Your task to perform on an android device: turn notification dots on Image 0: 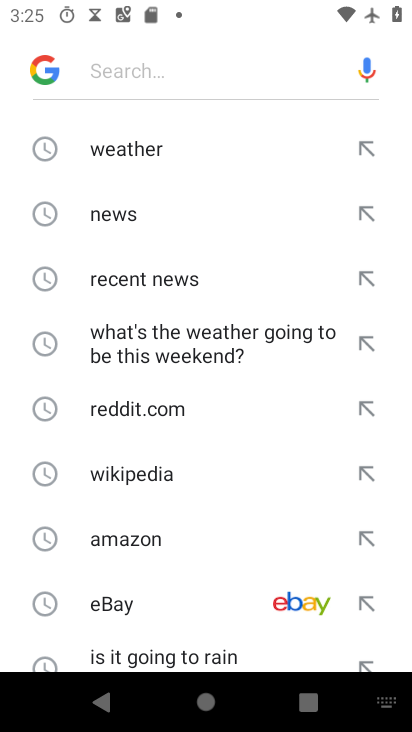
Step 0: press home button
Your task to perform on an android device: turn notification dots on Image 1: 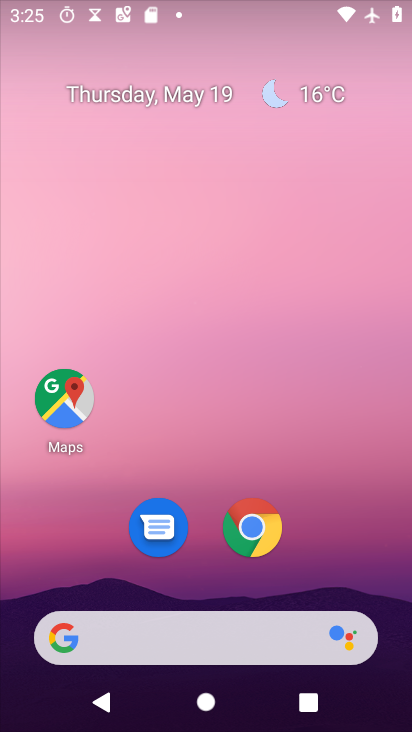
Step 1: drag from (354, 556) to (247, 11)
Your task to perform on an android device: turn notification dots on Image 2: 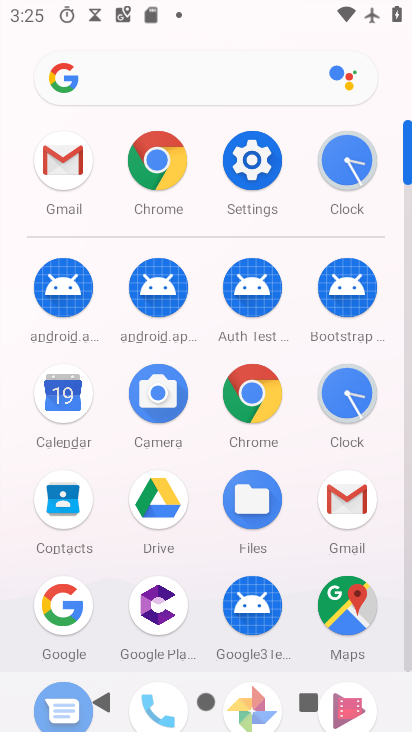
Step 2: click (274, 176)
Your task to perform on an android device: turn notification dots on Image 3: 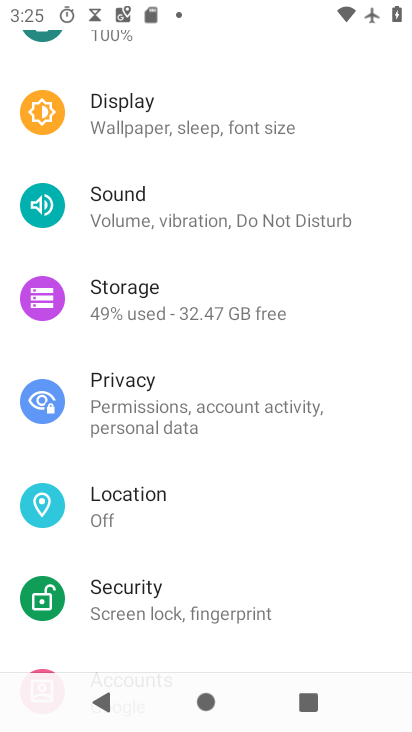
Step 3: drag from (243, 149) to (199, 610)
Your task to perform on an android device: turn notification dots on Image 4: 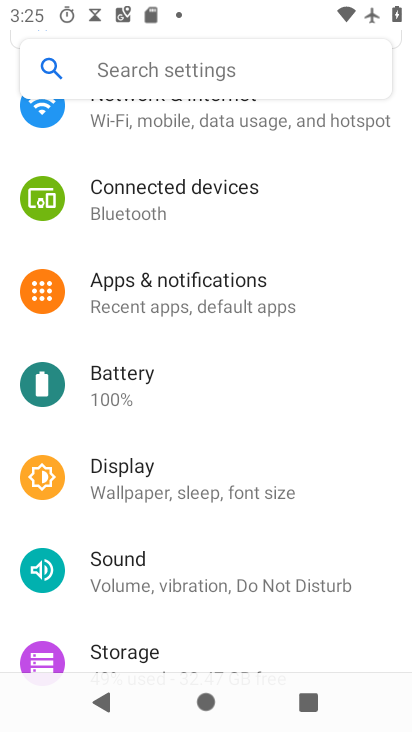
Step 4: click (191, 277)
Your task to perform on an android device: turn notification dots on Image 5: 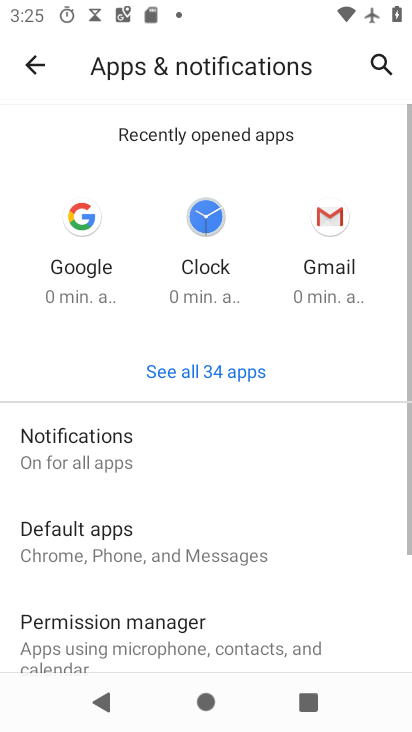
Step 5: click (191, 415)
Your task to perform on an android device: turn notification dots on Image 6: 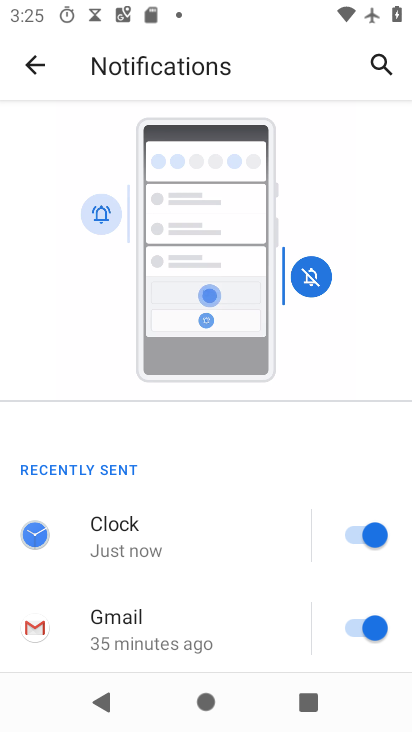
Step 6: drag from (204, 612) to (197, 201)
Your task to perform on an android device: turn notification dots on Image 7: 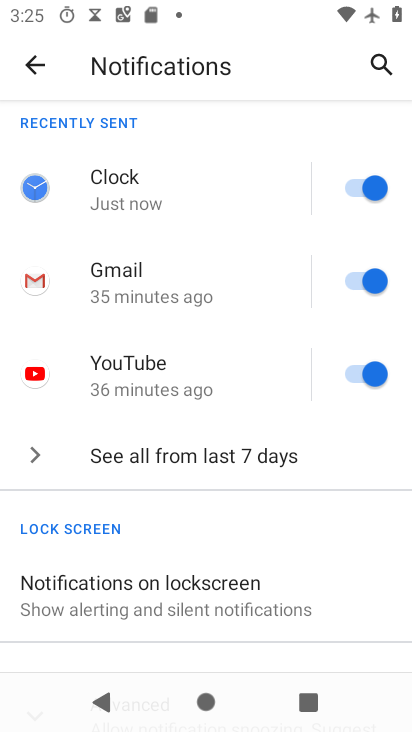
Step 7: drag from (206, 487) to (204, 207)
Your task to perform on an android device: turn notification dots on Image 8: 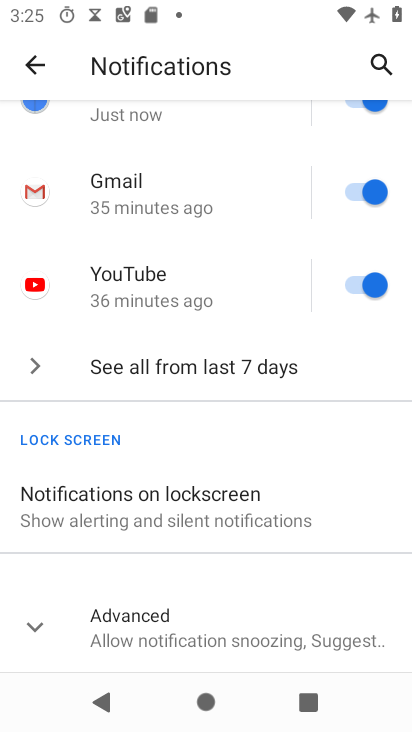
Step 8: click (182, 620)
Your task to perform on an android device: turn notification dots on Image 9: 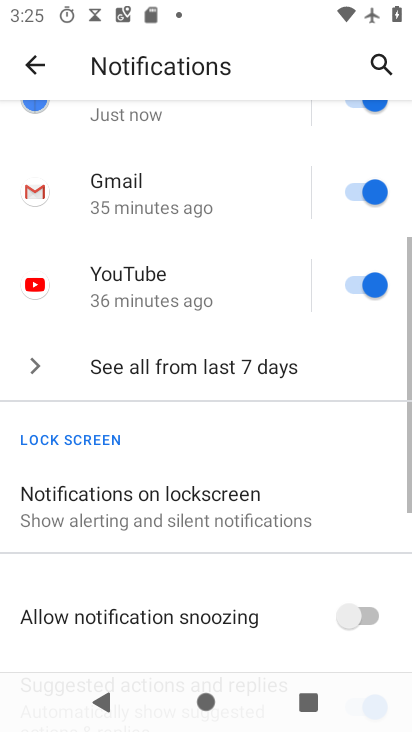
Step 9: task complete